Your task to perform on an android device: Open sound settings Image 0: 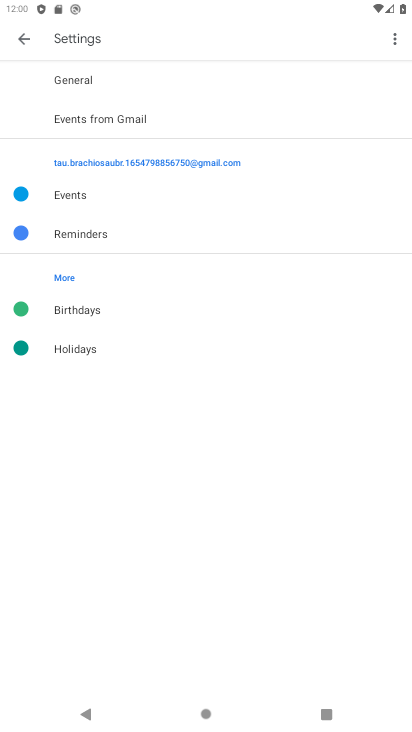
Step 0: press home button
Your task to perform on an android device: Open sound settings Image 1: 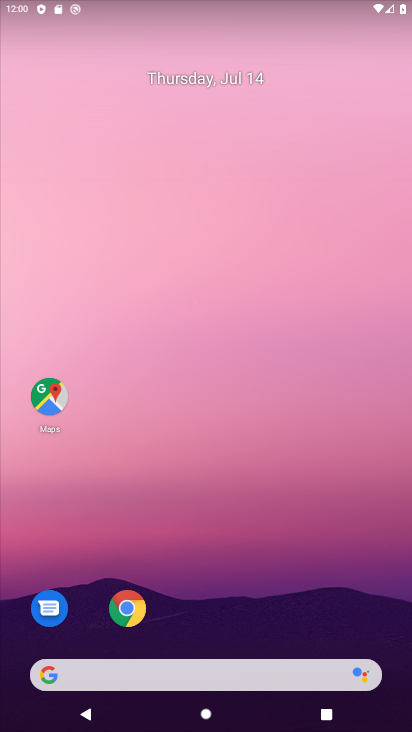
Step 1: drag from (28, 564) to (187, 238)
Your task to perform on an android device: Open sound settings Image 2: 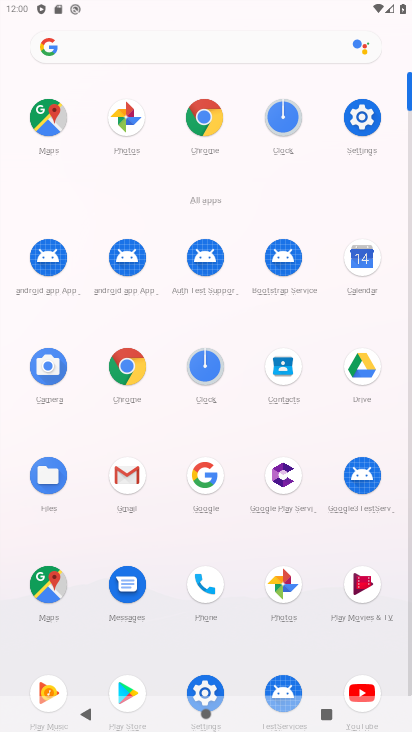
Step 2: click (347, 130)
Your task to perform on an android device: Open sound settings Image 3: 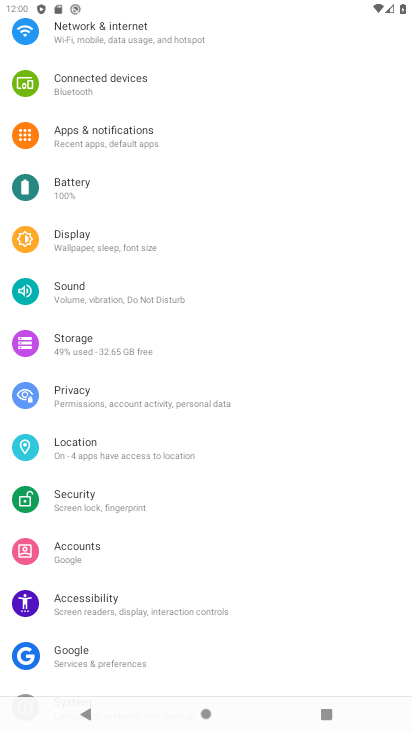
Step 3: click (113, 297)
Your task to perform on an android device: Open sound settings Image 4: 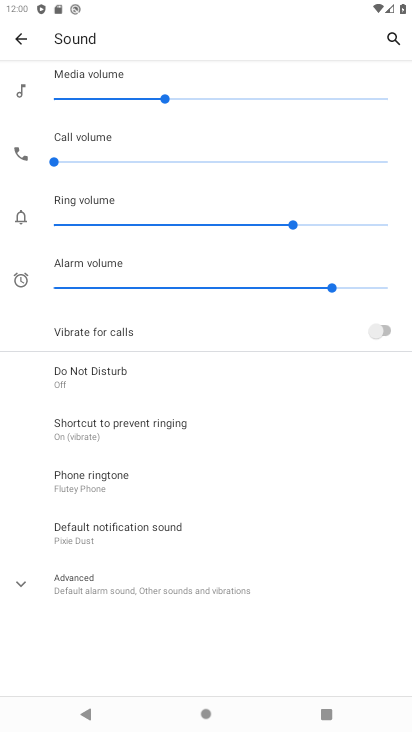
Step 4: task complete